Your task to perform on an android device: Open network settings Image 0: 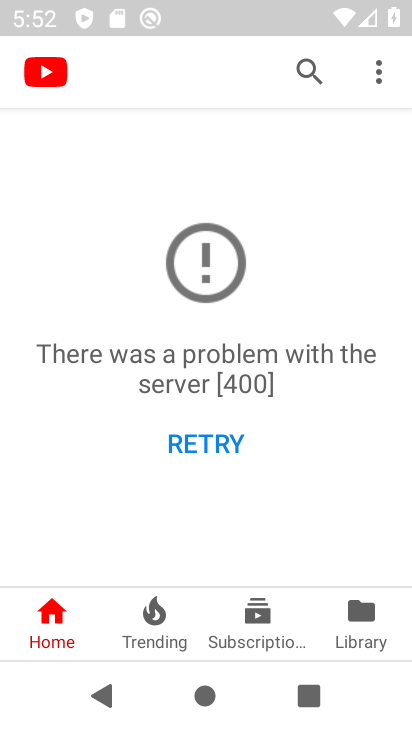
Step 0: press home button
Your task to perform on an android device: Open network settings Image 1: 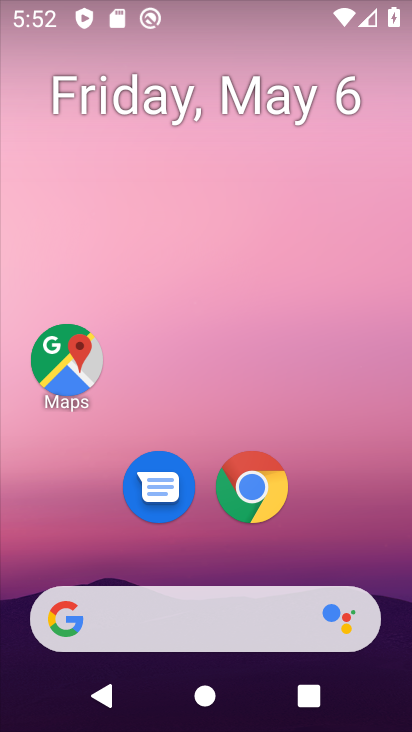
Step 1: drag from (342, 517) to (366, 77)
Your task to perform on an android device: Open network settings Image 2: 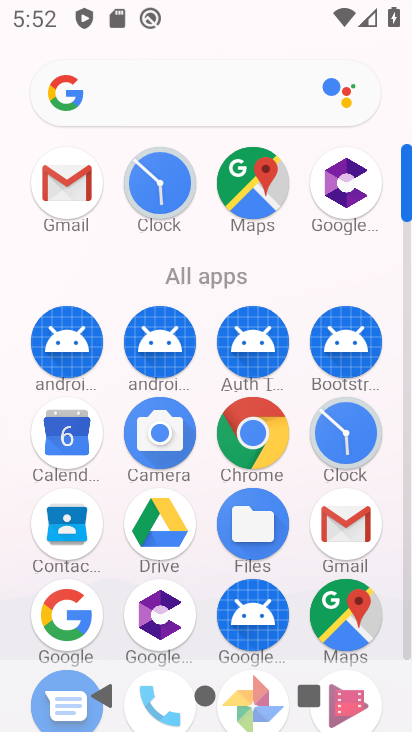
Step 2: drag from (292, 298) to (277, 11)
Your task to perform on an android device: Open network settings Image 3: 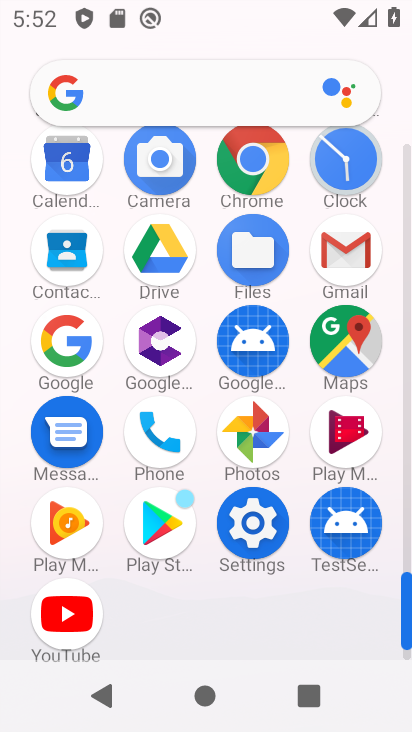
Step 3: click (253, 529)
Your task to perform on an android device: Open network settings Image 4: 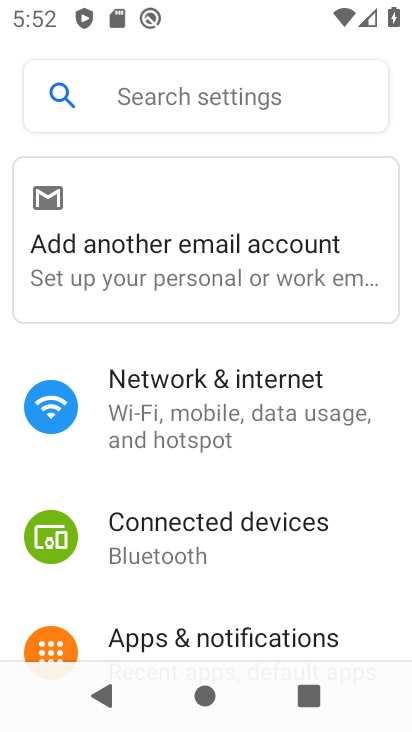
Step 4: drag from (204, 247) to (406, 399)
Your task to perform on an android device: Open network settings Image 5: 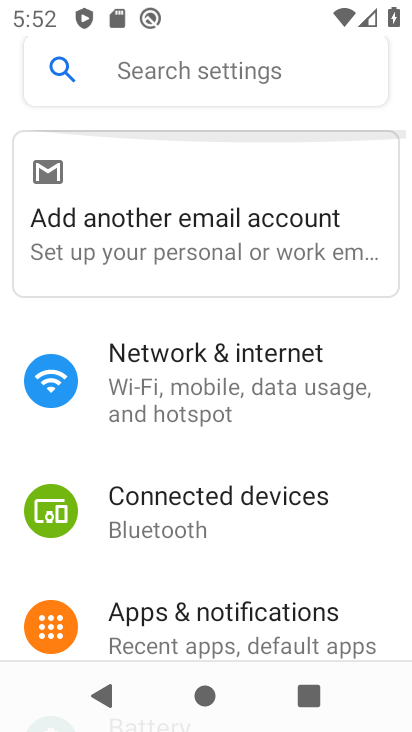
Step 5: click (260, 406)
Your task to perform on an android device: Open network settings Image 6: 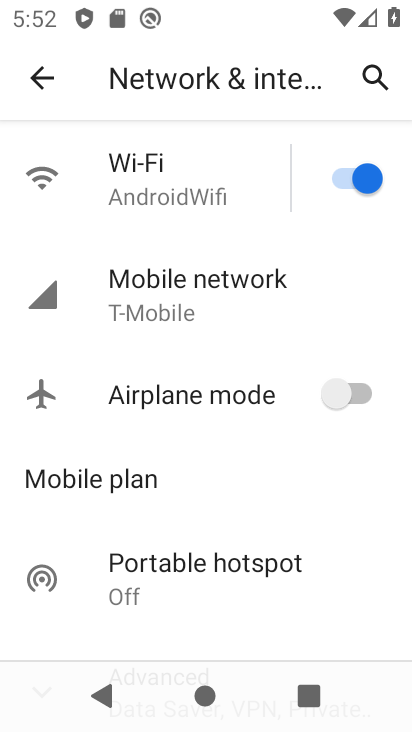
Step 6: task complete